Your task to perform on an android device: turn off data saver in the chrome app Image 0: 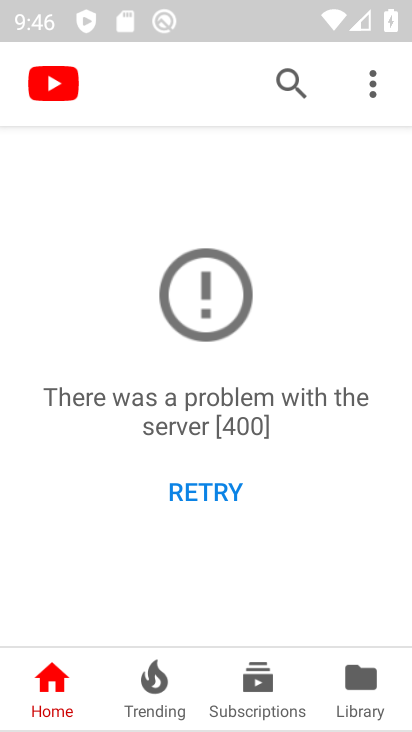
Step 0: press home button
Your task to perform on an android device: turn off data saver in the chrome app Image 1: 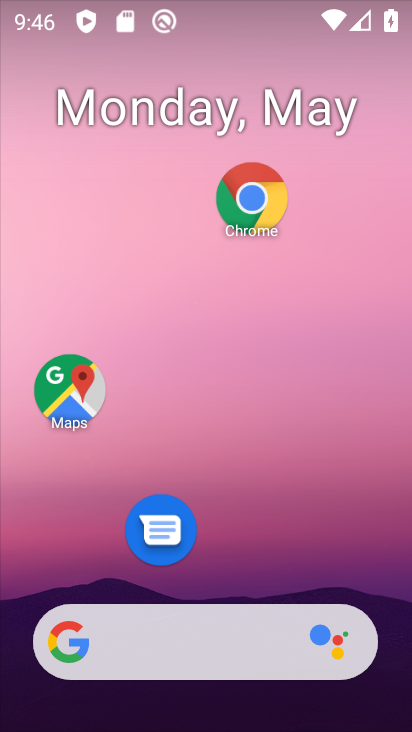
Step 1: click (247, 231)
Your task to perform on an android device: turn off data saver in the chrome app Image 2: 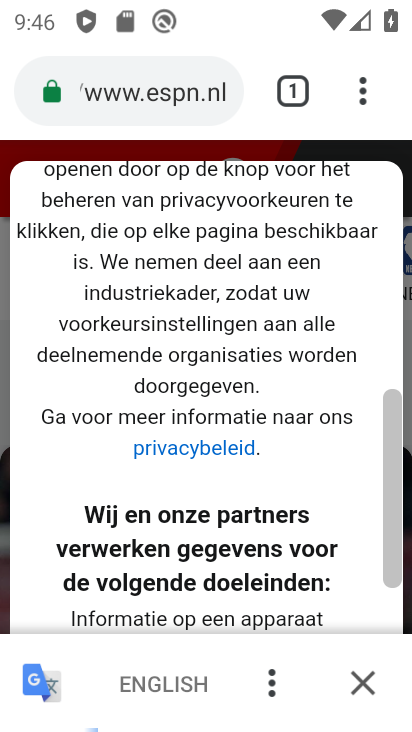
Step 2: click (354, 83)
Your task to perform on an android device: turn off data saver in the chrome app Image 3: 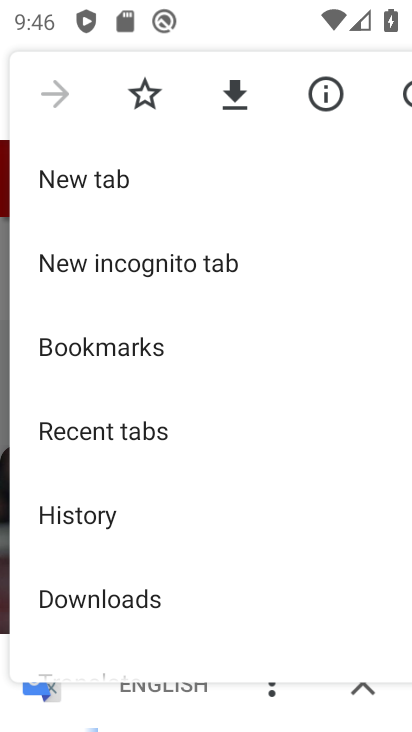
Step 3: drag from (100, 622) to (181, 375)
Your task to perform on an android device: turn off data saver in the chrome app Image 4: 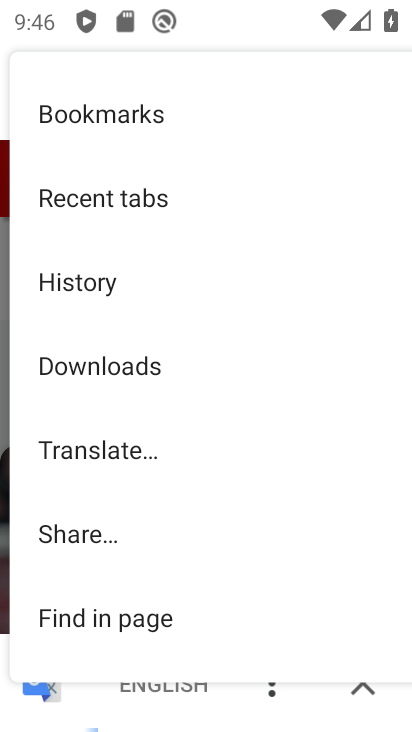
Step 4: drag from (128, 565) to (160, 350)
Your task to perform on an android device: turn off data saver in the chrome app Image 5: 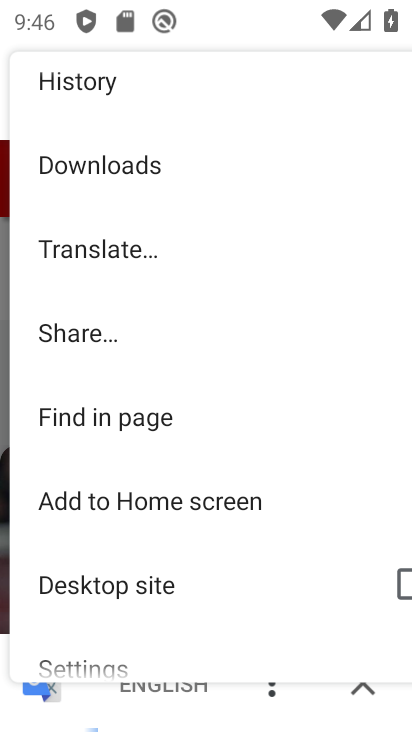
Step 5: drag from (127, 570) to (148, 420)
Your task to perform on an android device: turn off data saver in the chrome app Image 6: 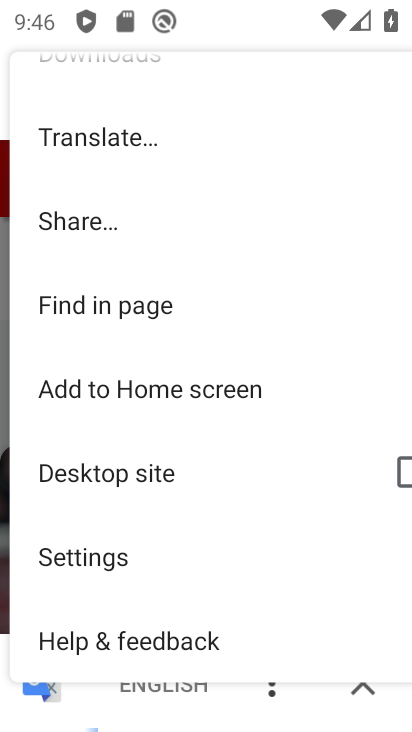
Step 6: click (72, 563)
Your task to perform on an android device: turn off data saver in the chrome app Image 7: 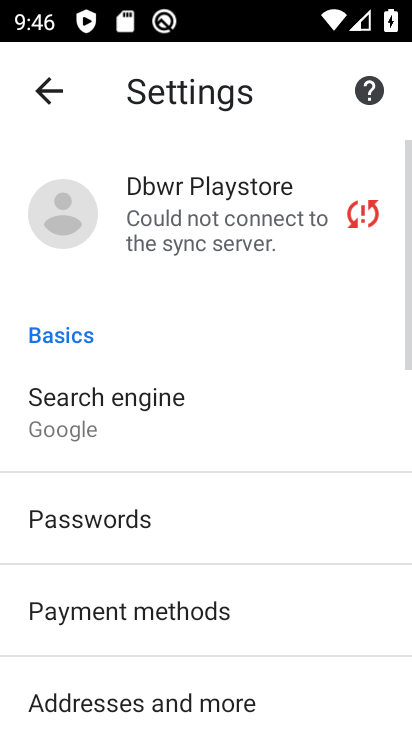
Step 7: task complete